Your task to perform on an android device: turn off location Image 0: 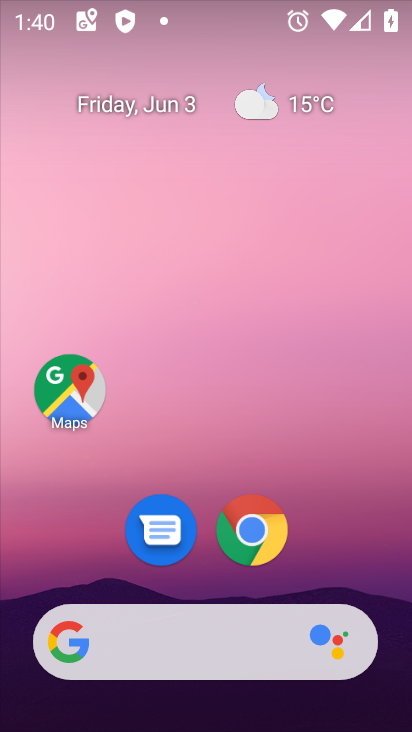
Step 0: drag from (343, 567) to (288, 93)
Your task to perform on an android device: turn off location Image 1: 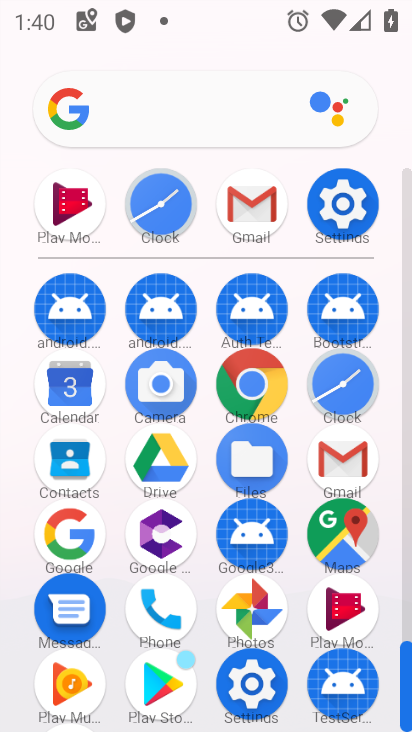
Step 1: click (342, 187)
Your task to perform on an android device: turn off location Image 2: 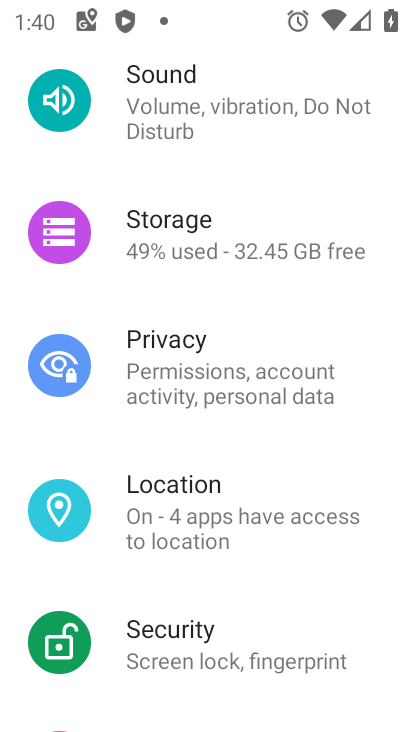
Step 2: click (268, 502)
Your task to perform on an android device: turn off location Image 3: 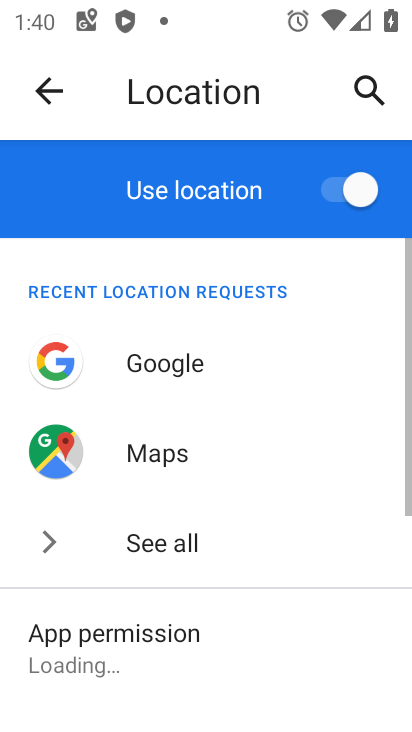
Step 3: click (348, 184)
Your task to perform on an android device: turn off location Image 4: 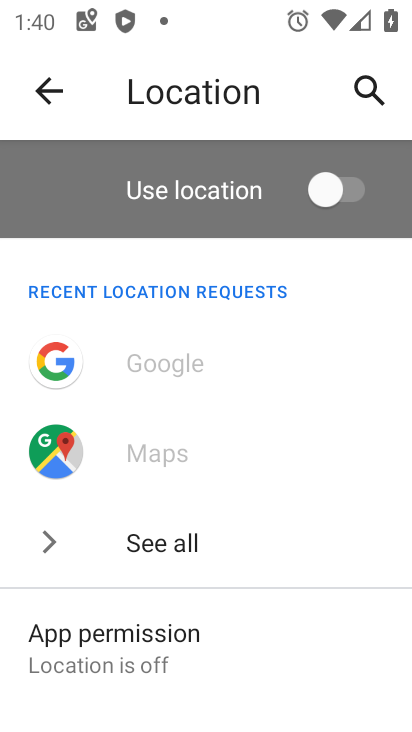
Step 4: task complete